Your task to perform on an android device: see creations saved in the google photos Image 0: 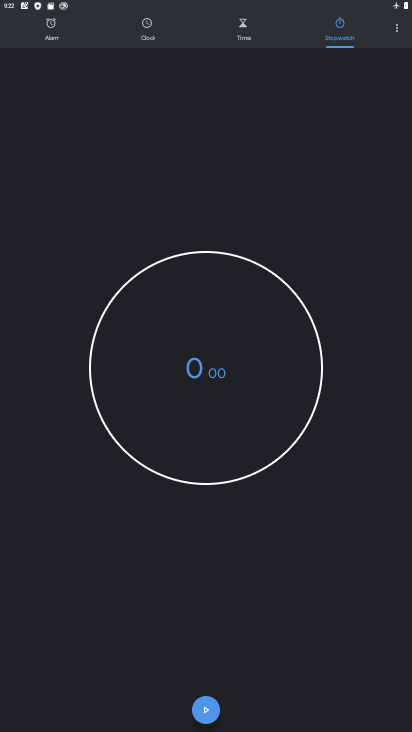
Step 0: press home button
Your task to perform on an android device: see creations saved in the google photos Image 1: 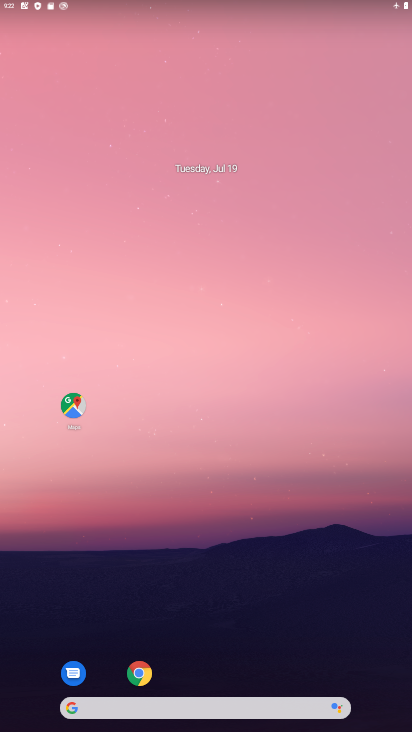
Step 1: drag from (215, 655) to (216, 188)
Your task to perform on an android device: see creations saved in the google photos Image 2: 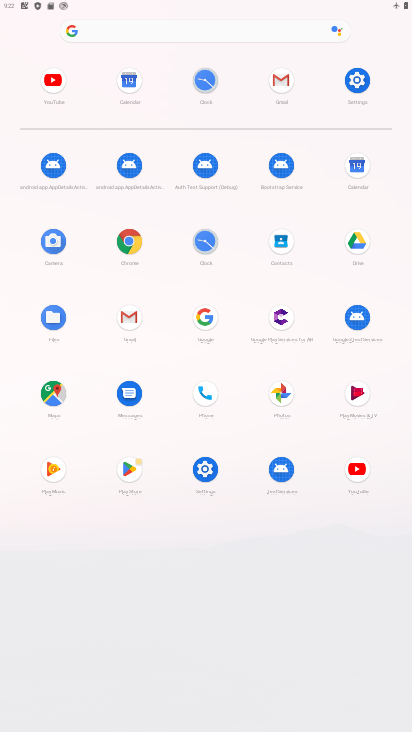
Step 2: click (284, 388)
Your task to perform on an android device: see creations saved in the google photos Image 3: 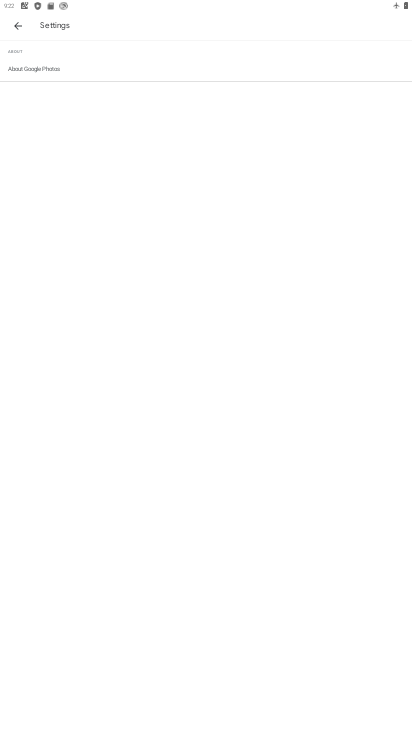
Step 3: click (18, 26)
Your task to perform on an android device: see creations saved in the google photos Image 4: 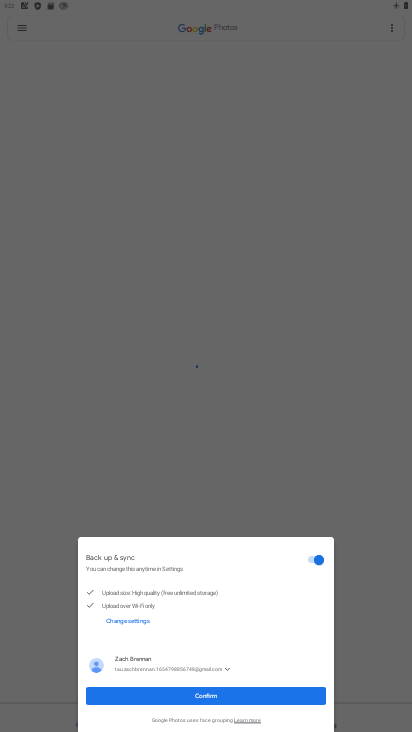
Step 4: click (173, 691)
Your task to perform on an android device: see creations saved in the google photos Image 5: 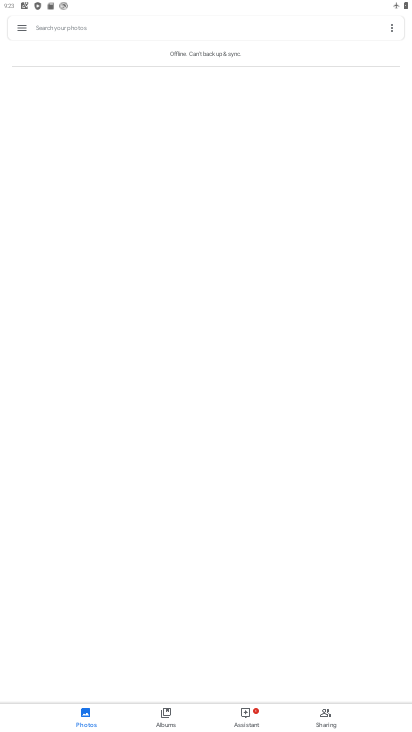
Step 5: click (78, 27)
Your task to perform on an android device: see creations saved in the google photos Image 6: 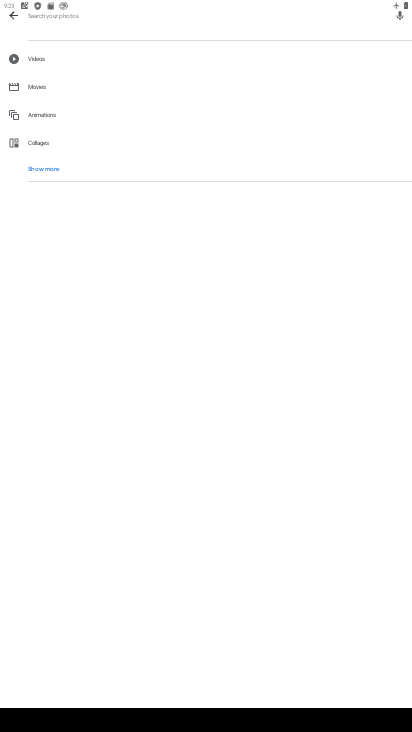
Step 6: click (56, 161)
Your task to perform on an android device: see creations saved in the google photos Image 7: 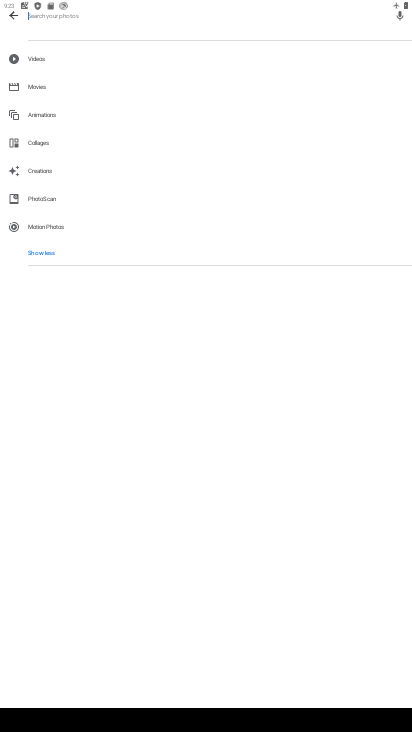
Step 7: click (34, 174)
Your task to perform on an android device: see creations saved in the google photos Image 8: 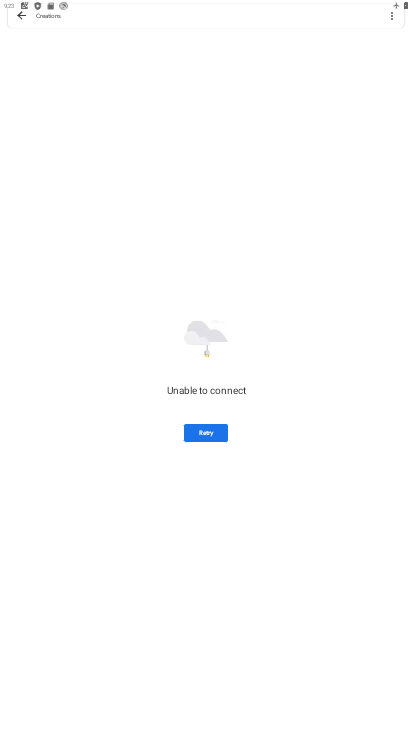
Step 8: task complete